Your task to perform on an android device: Go to Yahoo.com Image 0: 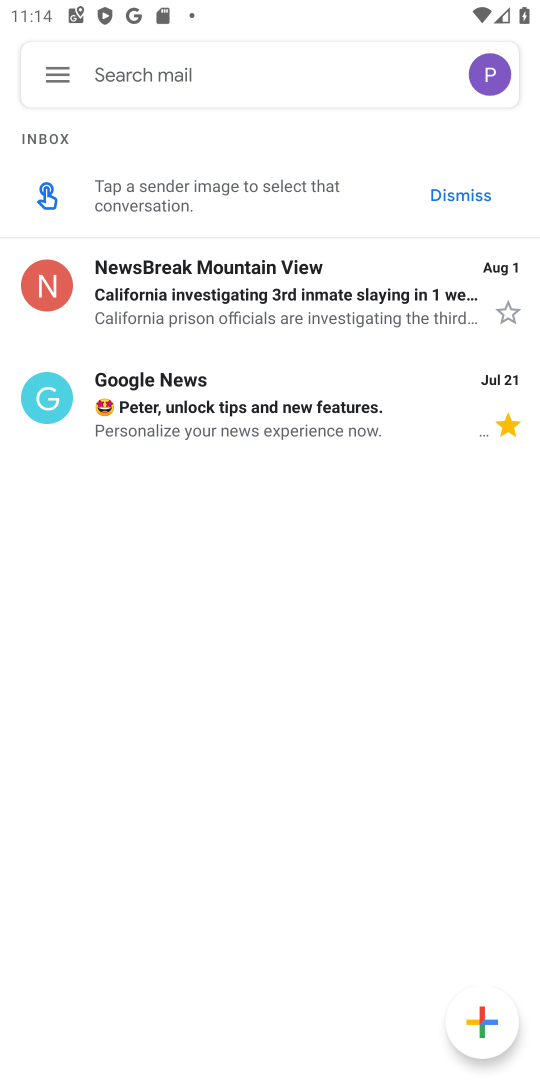
Step 0: press home button
Your task to perform on an android device: Go to Yahoo.com Image 1: 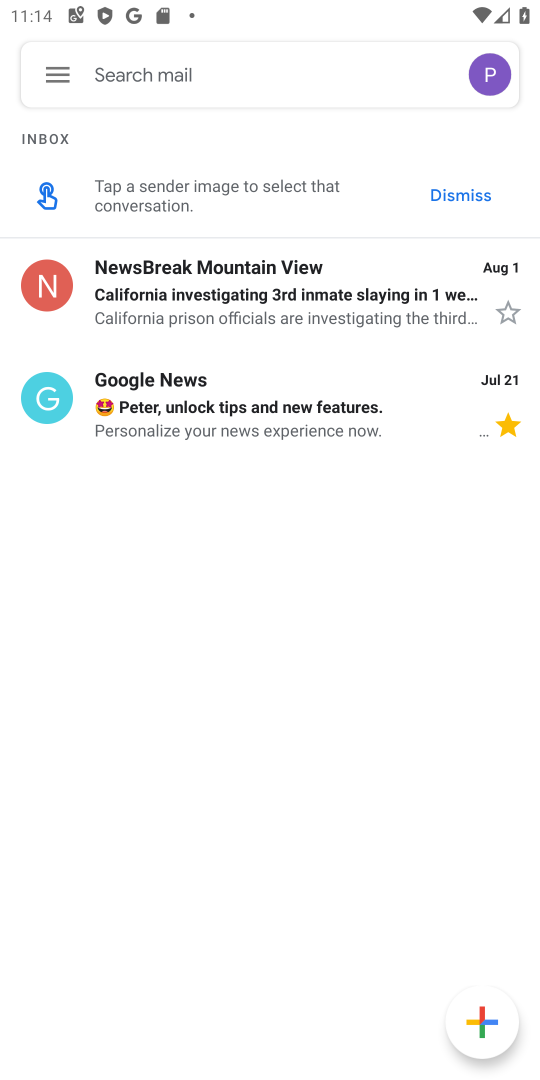
Step 1: press home button
Your task to perform on an android device: Go to Yahoo.com Image 2: 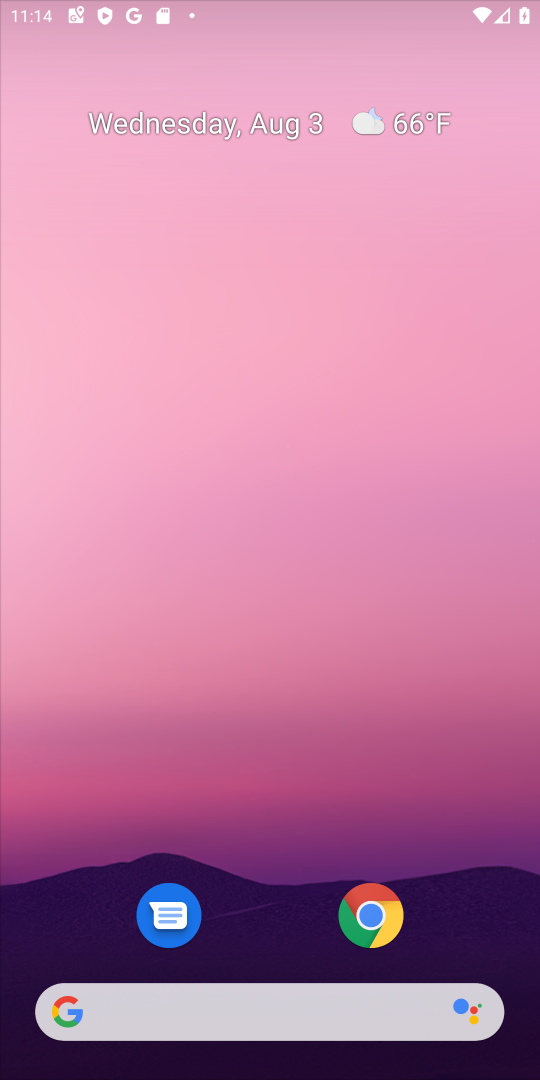
Step 2: press home button
Your task to perform on an android device: Go to Yahoo.com Image 3: 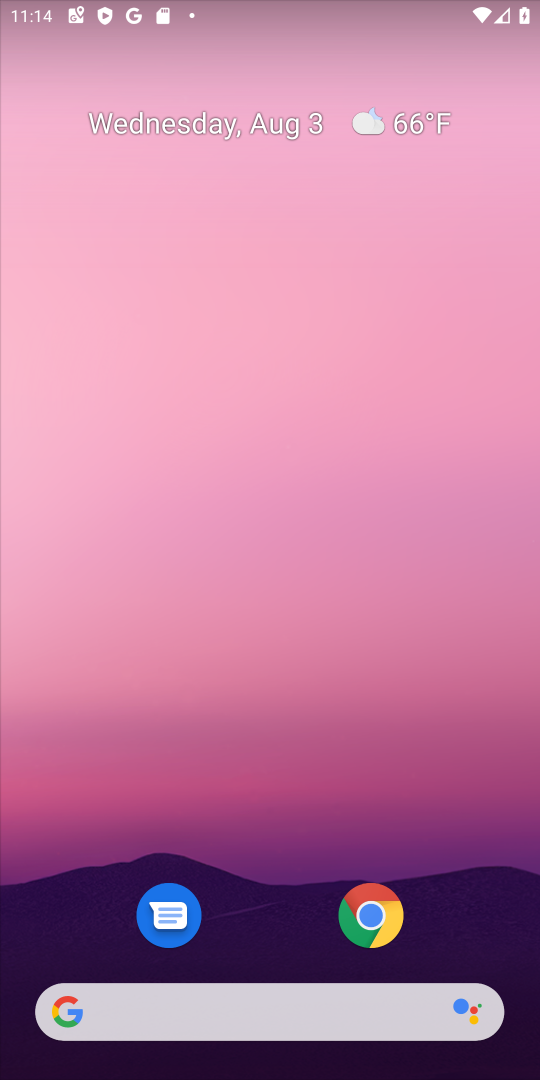
Step 3: press home button
Your task to perform on an android device: Go to Yahoo.com Image 4: 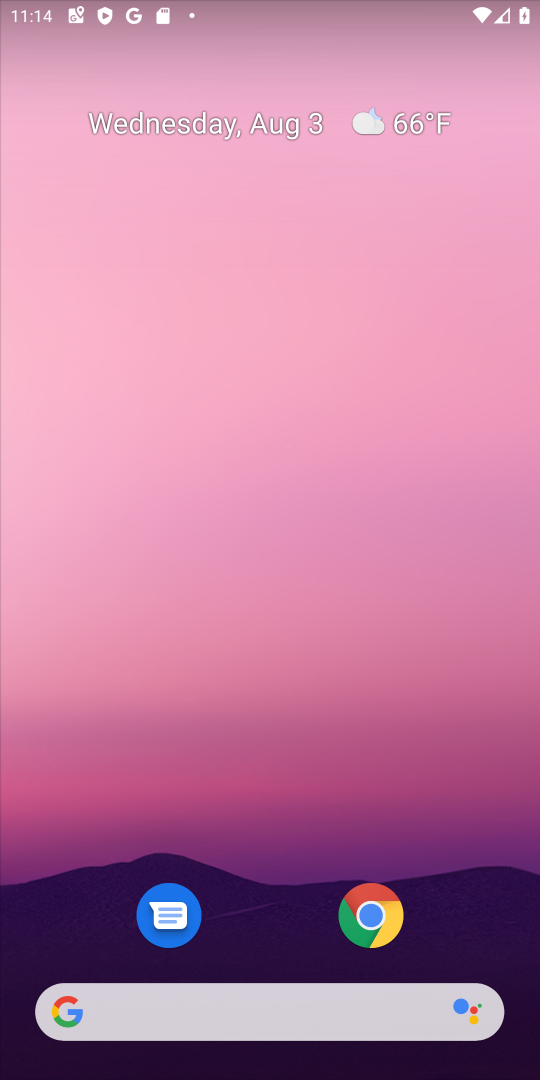
Step 4: click (366, 910)
Your task to perform on an android device: Go to Yahoo.com Image 5: 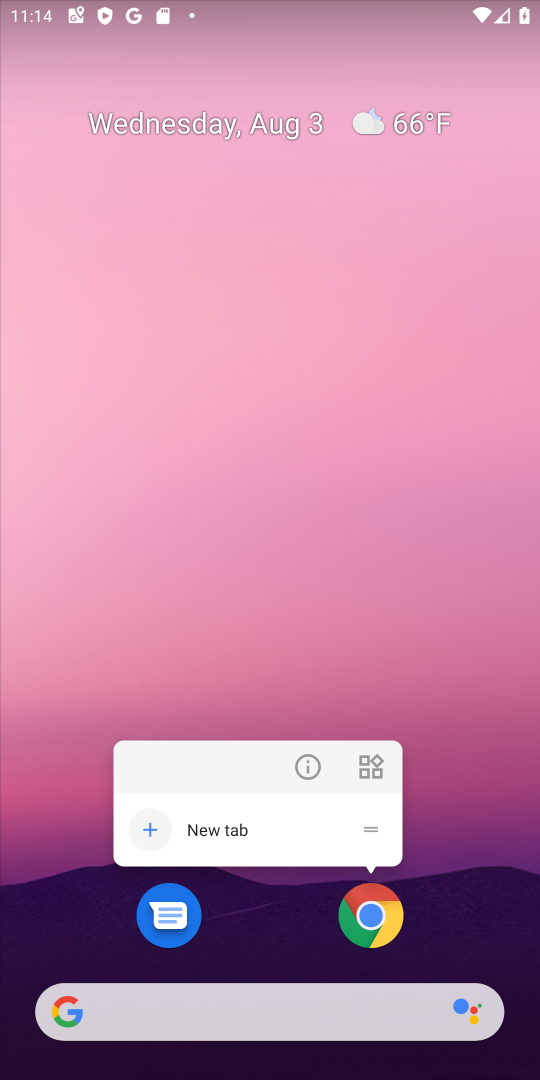
Step 5: click (366, 910)
Your task to perform on an android device: Go to Yahoo.com Image 6: 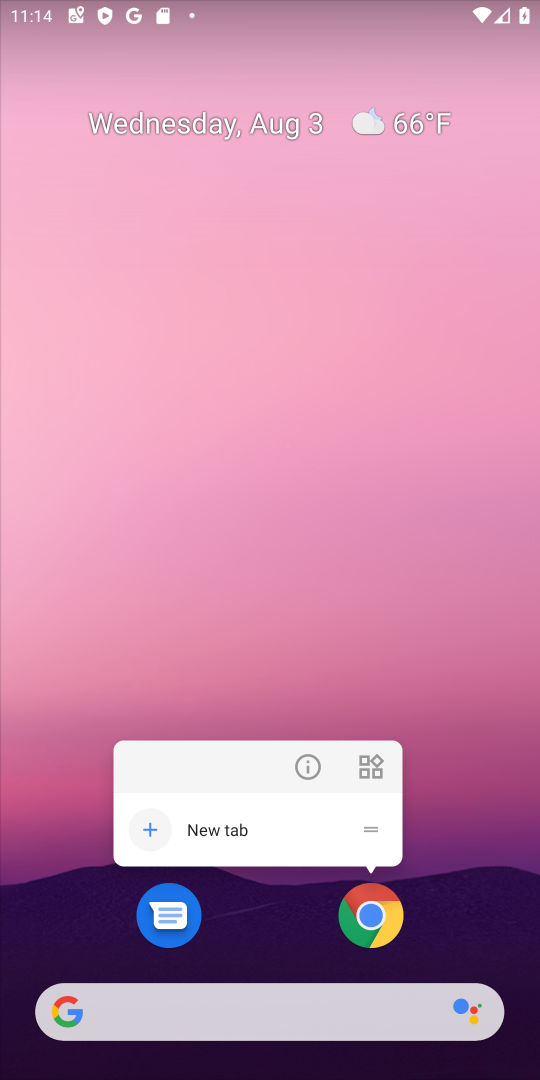
Step 6: click (366, 910)
Your task to perform on an android device: Go to Yahoo.com Image 7: 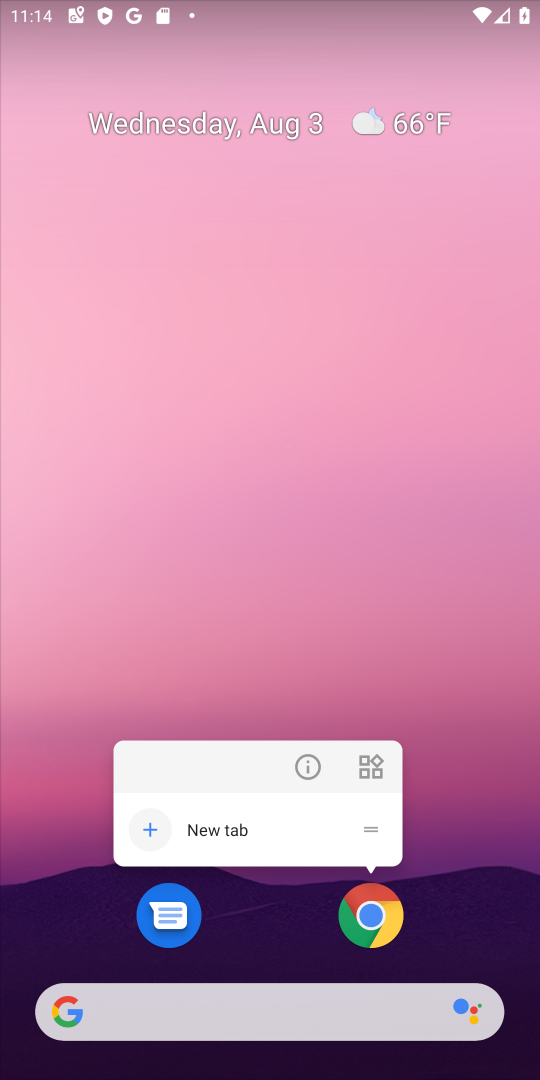
Step 7: click (366, 910)
Your task to perform on an android device: Go to Yahoo.com Image 8: 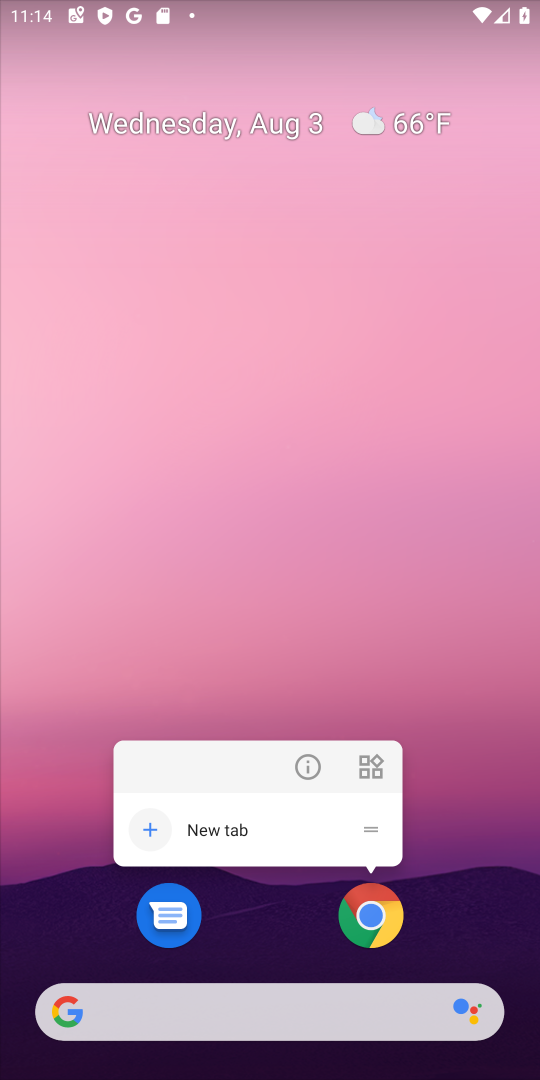
Step 8: click (366, 917)
Your task to perform on an android device: Go to Yahoo.com Image 9: 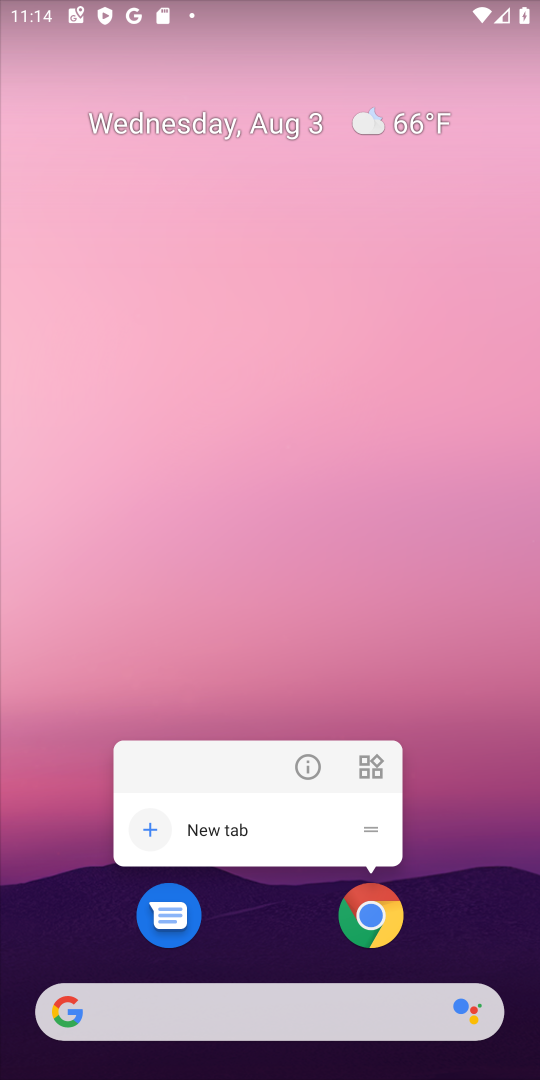
Step 9: click (366, 917)
Your task to perform on an android device: Go to Yahoo.com Image 10: 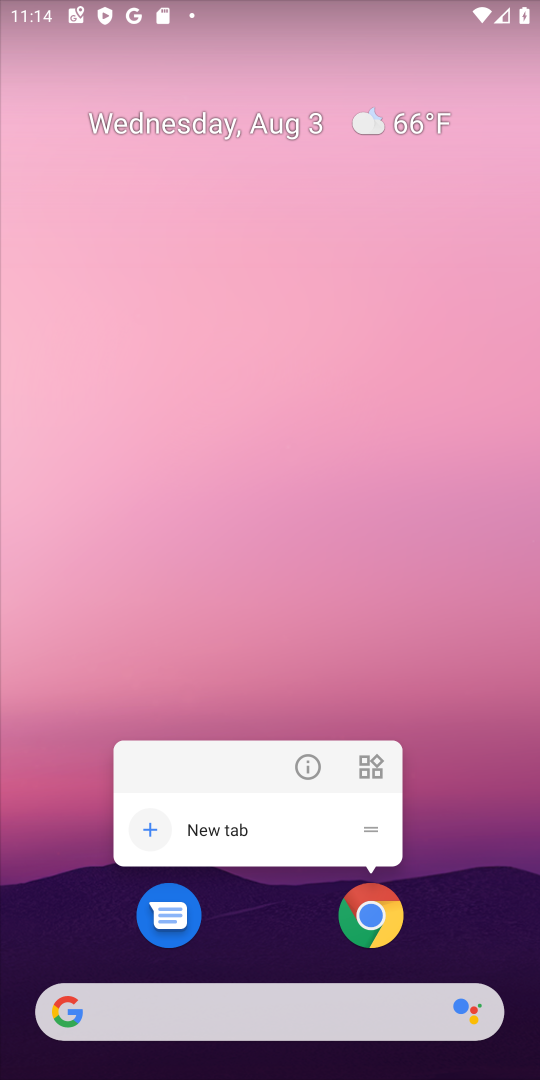
Step 10: click (366, 917)
Your task to perform on an android device: Go to Yahoo.com Image 11: 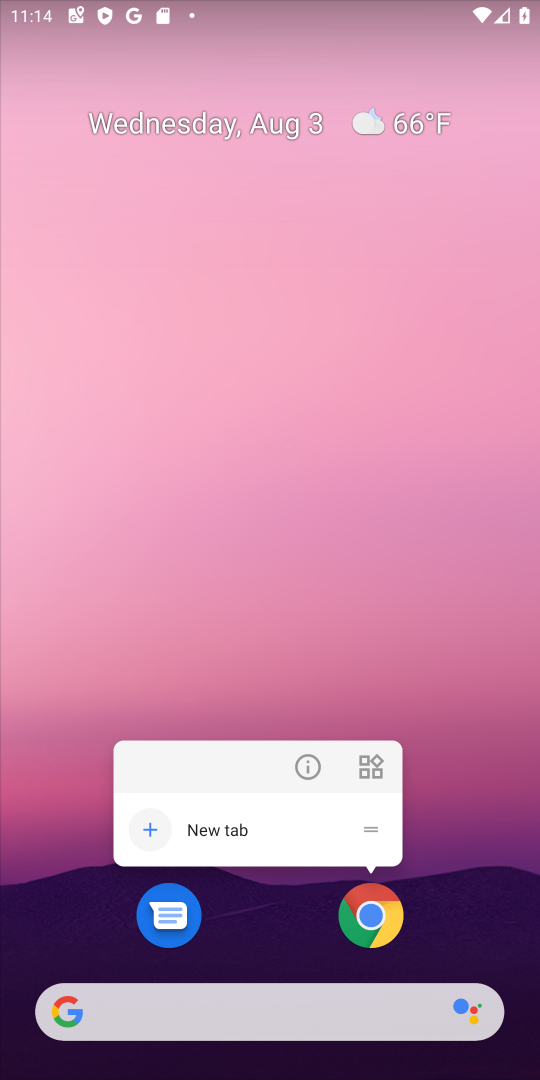
Step 11: click (366, 917)
Your task to perform on an android device: Go to Yahoo.com Image 12: 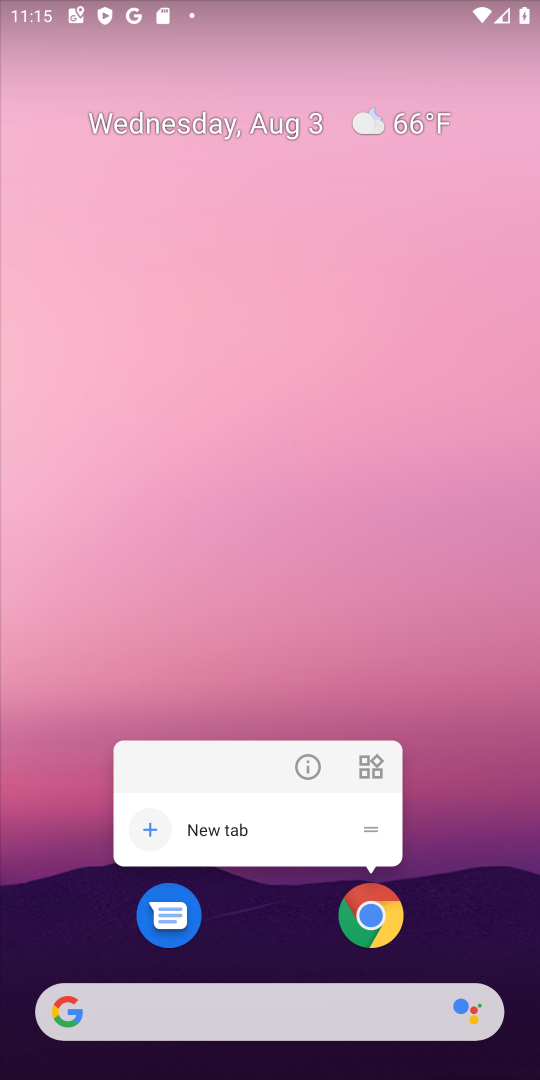
Step 12: click (366, 917)
Your task to perform on an android device: Go to Yahoo.com Image 13: 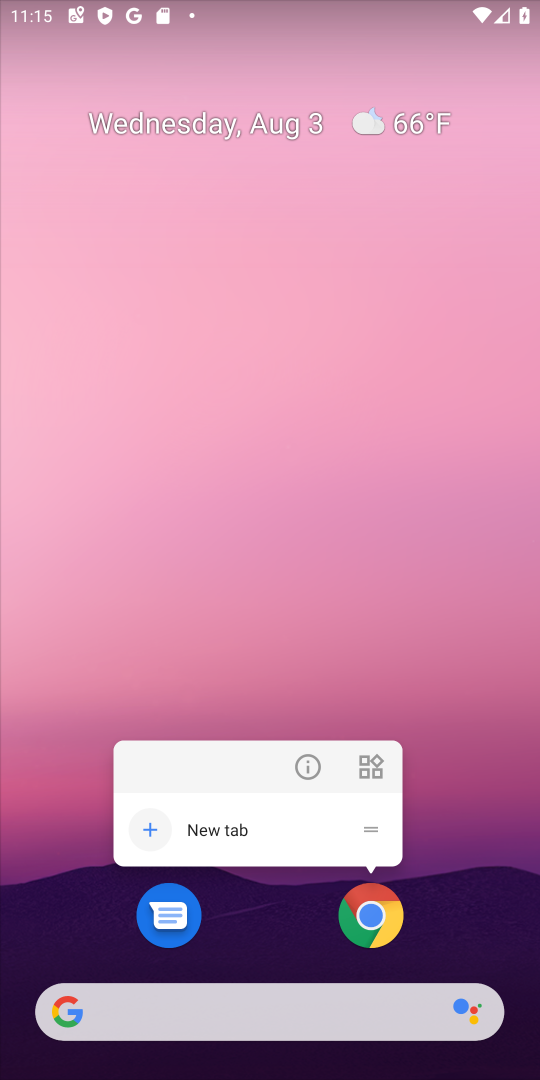
Step 13: click (366, 917)
Your task to perform on an android device: Go to Yahoo.com Image 14: 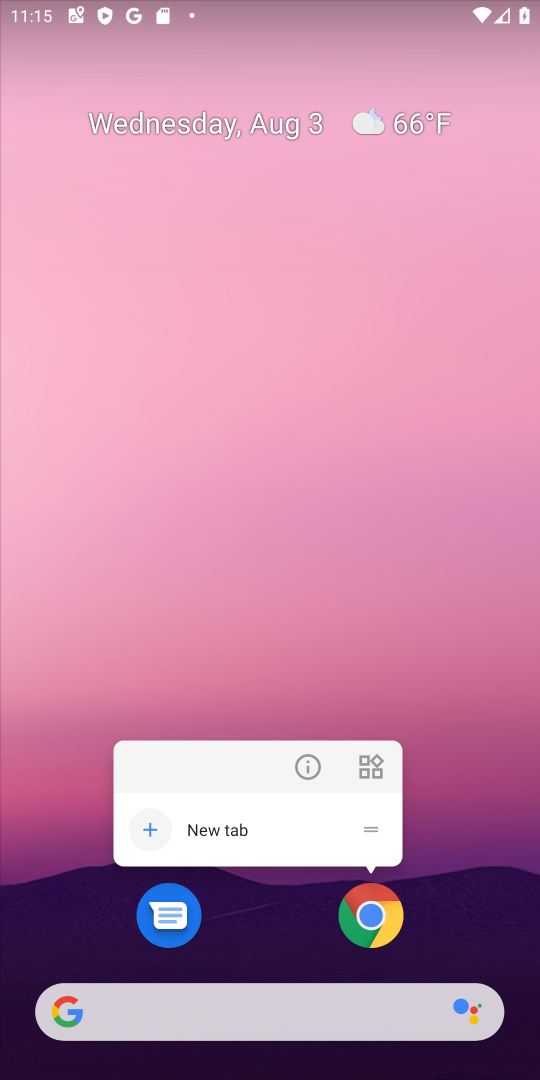
Step 14: click (366, 917)
Your task to perform on an android device: Go to Yahoo.com Image 15: 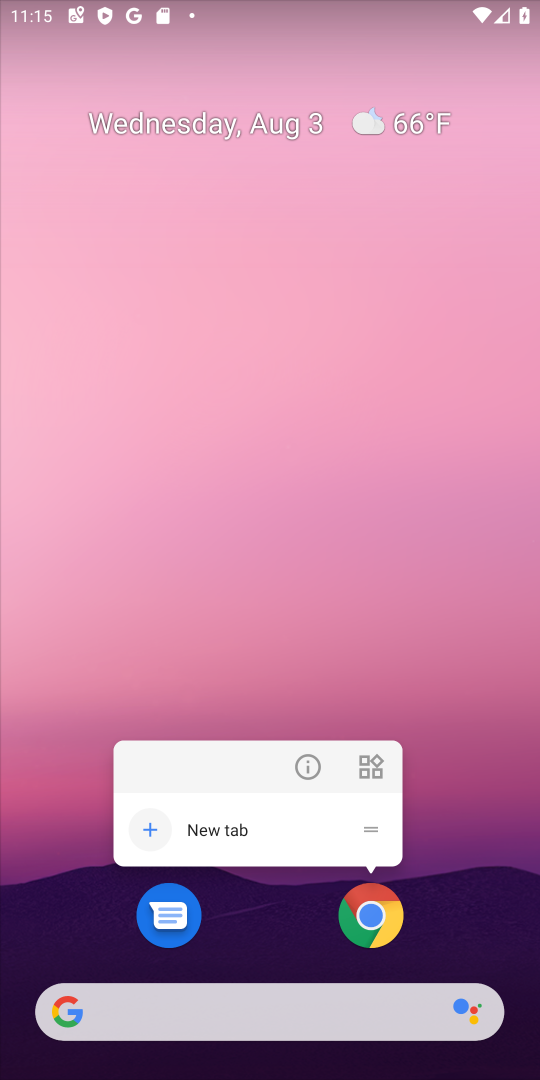
Step 15: click (366, 917)
Your task to perform on an android device: Go to Yahoo.com Image 16: 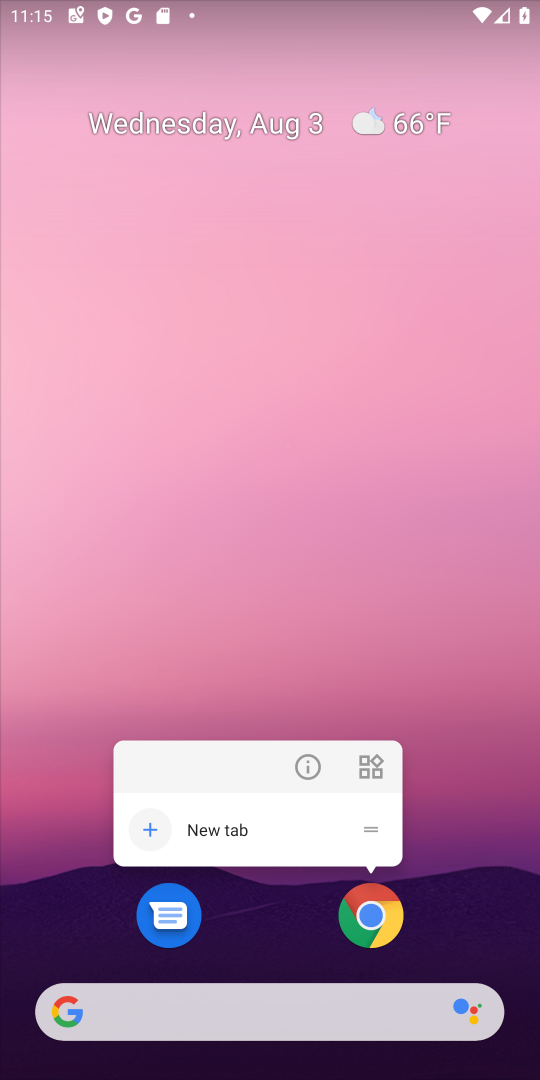
Step 16: click (396, 918)
Your task to perform on an android device: Go to Yahoo.com Image 17: 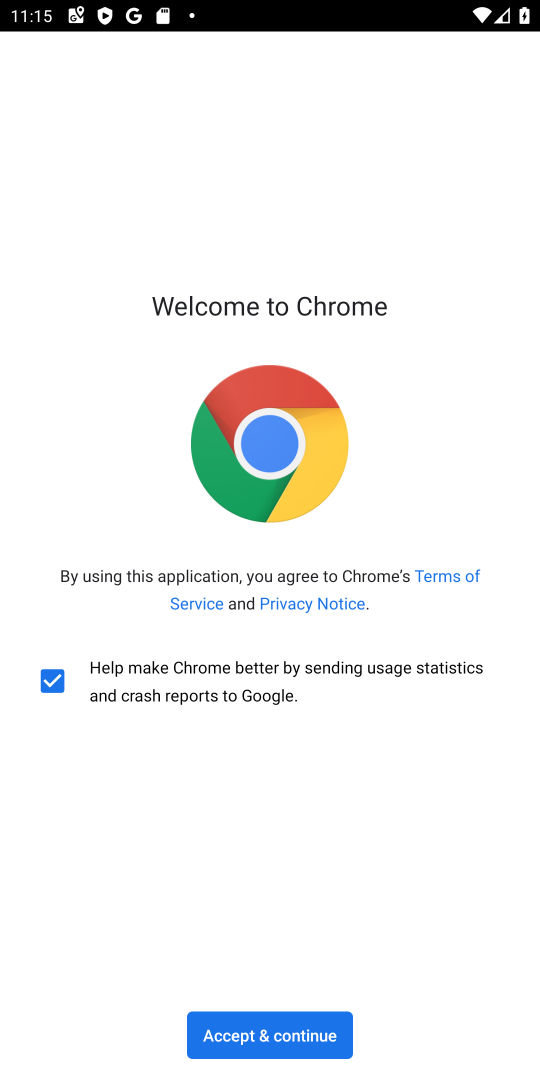
Step 17: click (247, 1040)
Your task to perform on an android device: Go to Yahoo.com Image 18: 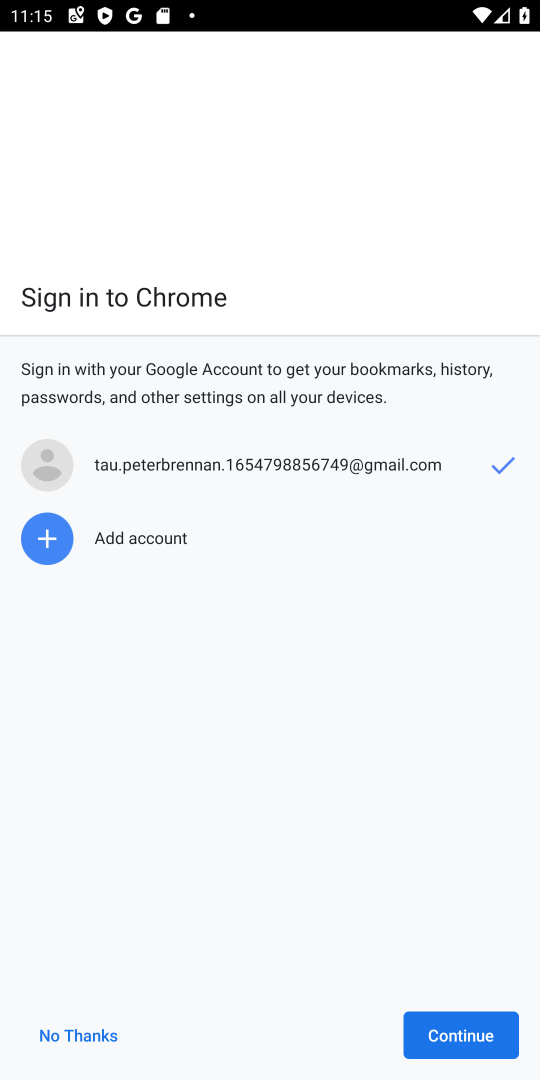
Step 18: click (493, 1037)
Your task to perform on an android device: Go to Yahoo.com Image 19: 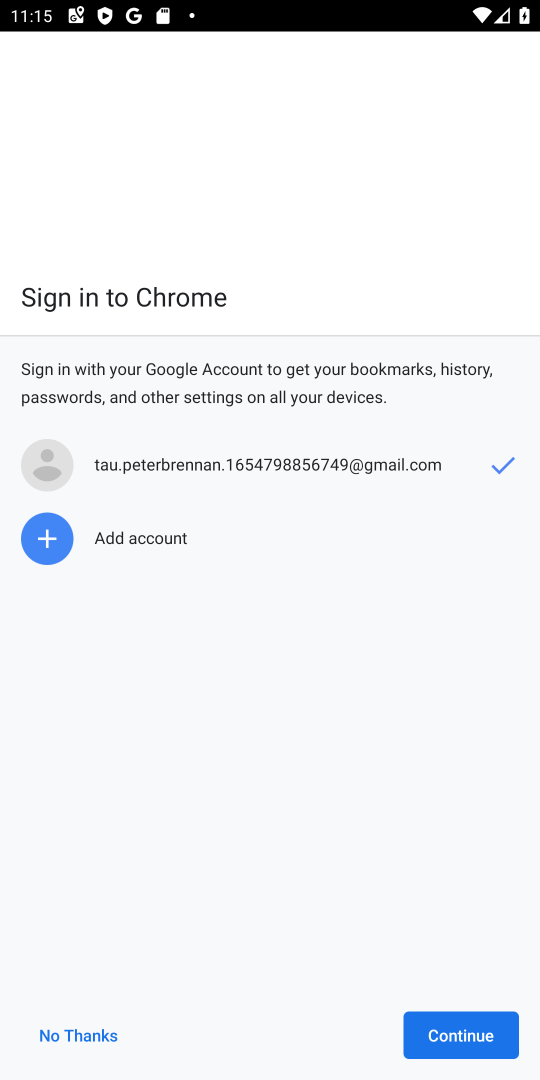
Step 19: click (493, 1037)
Your task to perform on an android device: Go to Yahoo.com Image 20: 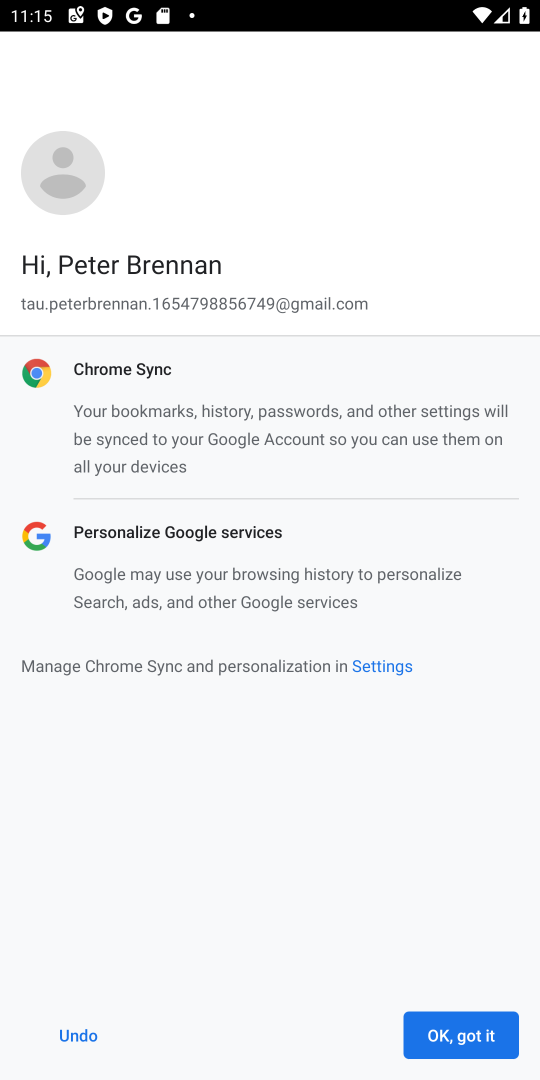
Step 20: click (493, 1037)
Your task to perform on an android device: Go to Yahoo.com Image 21: 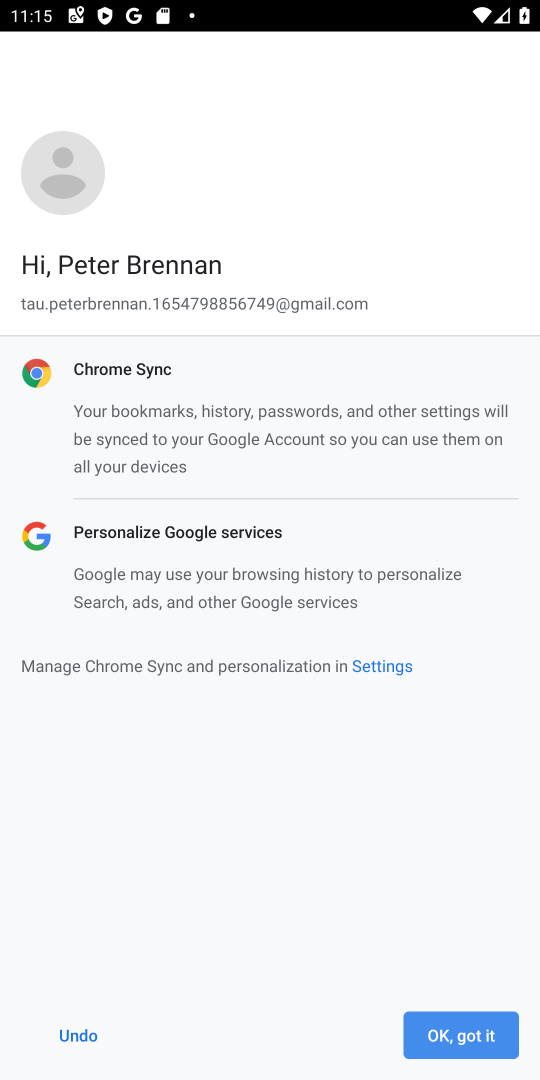
Step 21: click (493, 1037)
Your task to perform on an android device: Go to Yahoo.com Image 22: 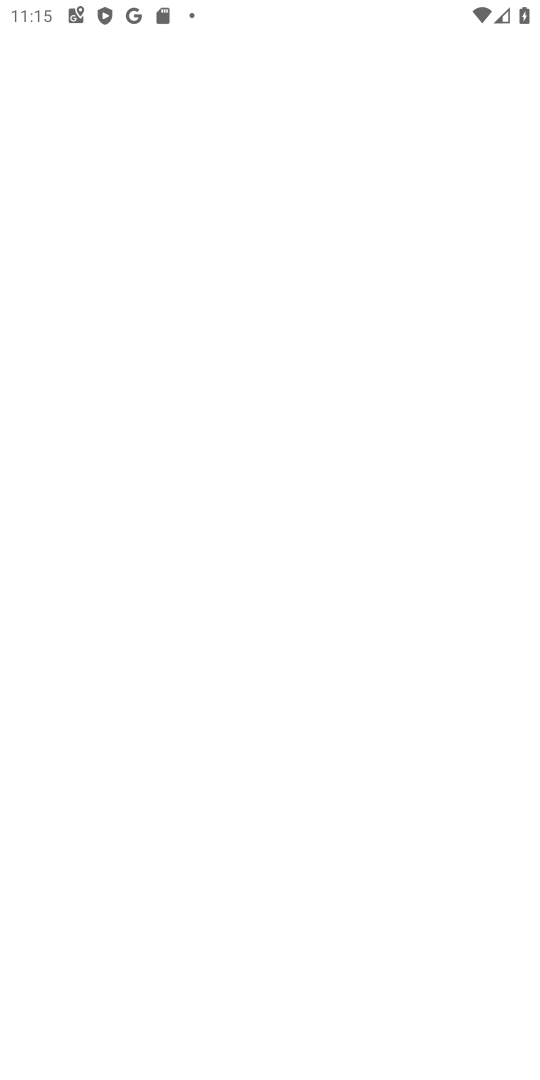
Step 22: click (493, 1037)
Your task to perform on an android device: Go to Yahoo.com Image 23: 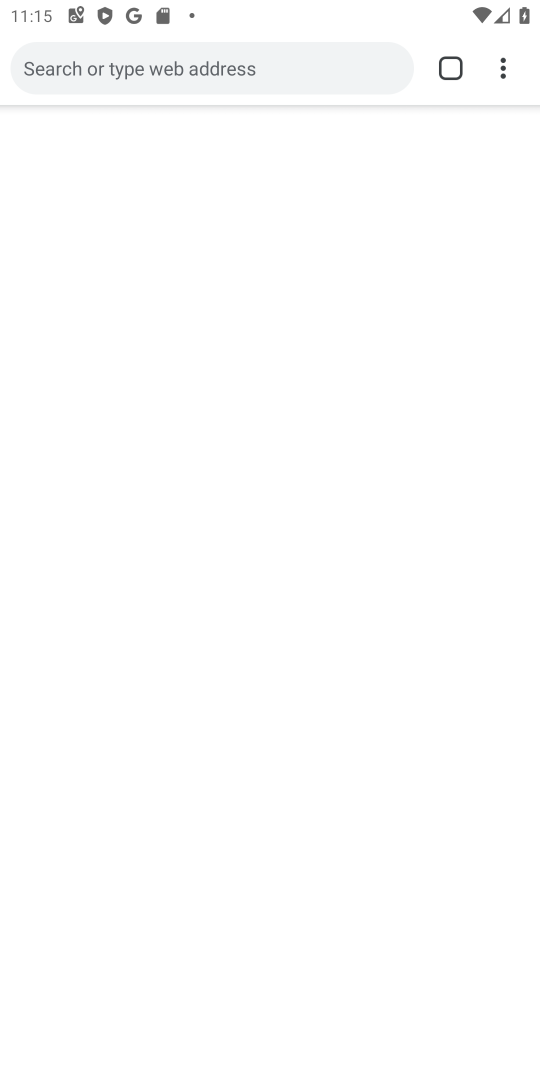
Step 23: click (493, 1037)
Your task to perform on an android device: Go to Yahoo.com Image 24: 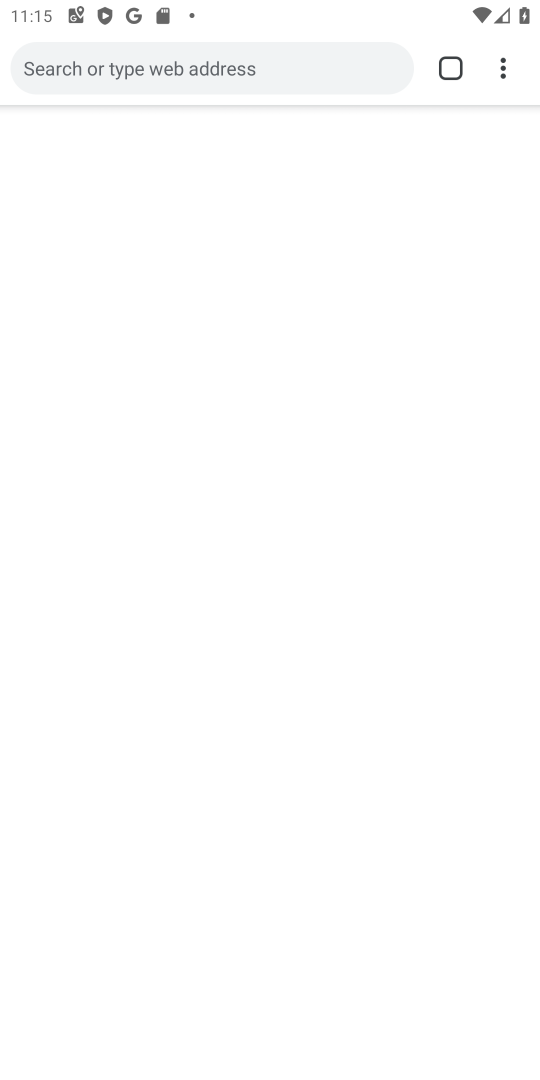
Step 24: click (493, 1037)
Your task to perform on an android device: Go to Yahoo.com Image 25: 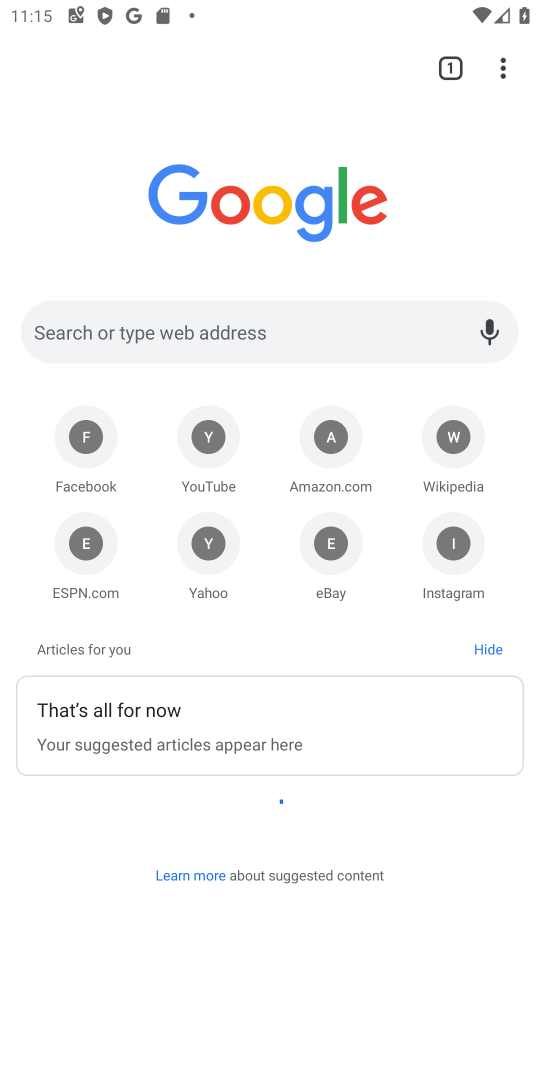
Step 25: click (153, 335)
Your task to perform on an android device: Go to Yahoo.com Image 26: 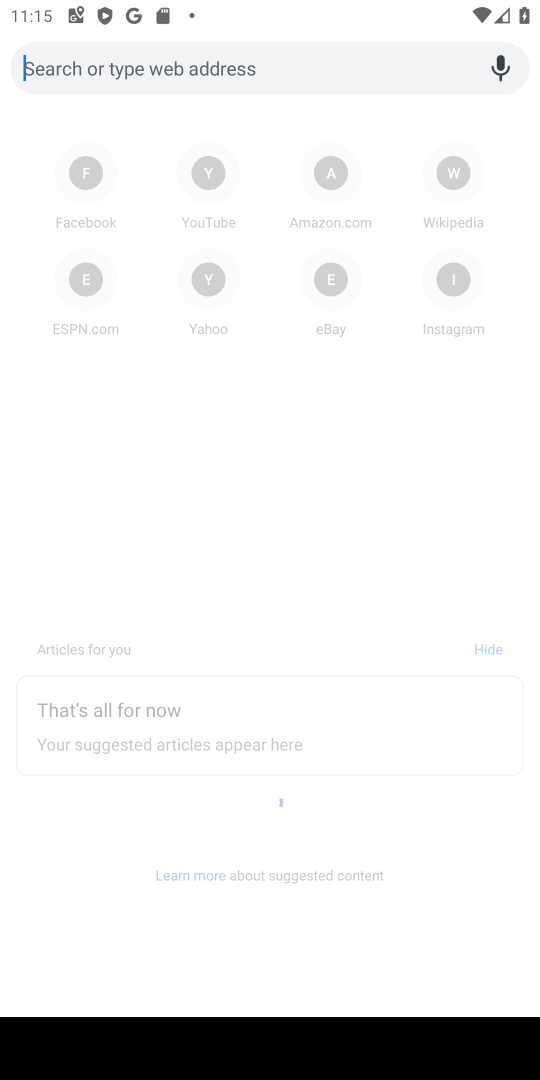
Step 26: type "Yahoo.com"
Your task to perform on an android device: Go to Yahoo.com Image 27: 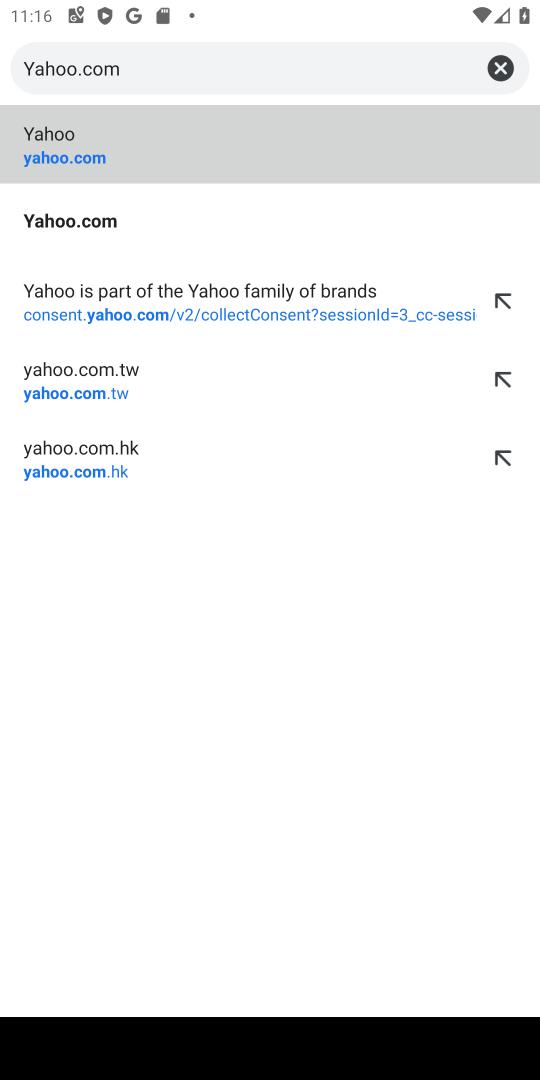
Step 27: click (85, 142)
Your task to perform on an android device: Go to Yahoo.com Image 28: 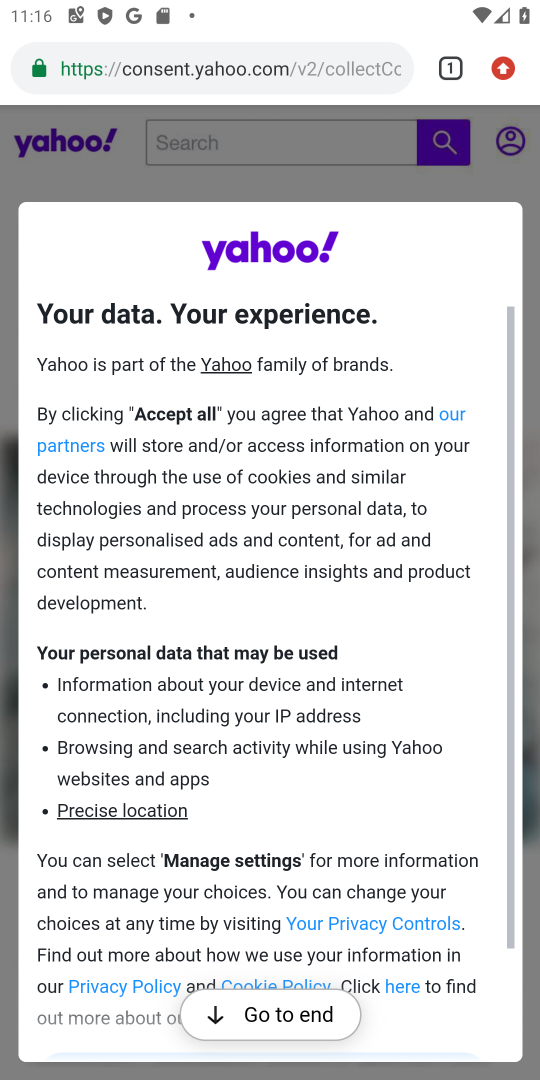
Step 28: task complete